Your task to perform on an android device: open sync settings in chrome Image 0: 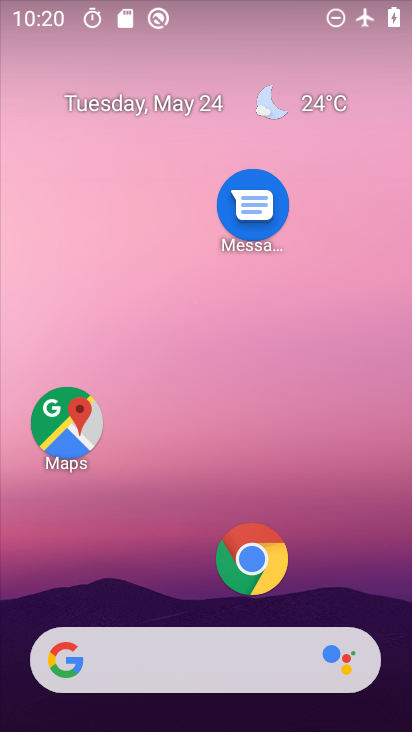
Step 0: click (244, 534)
Your task to perform on an android device: open sync settings in chrome Image 1: 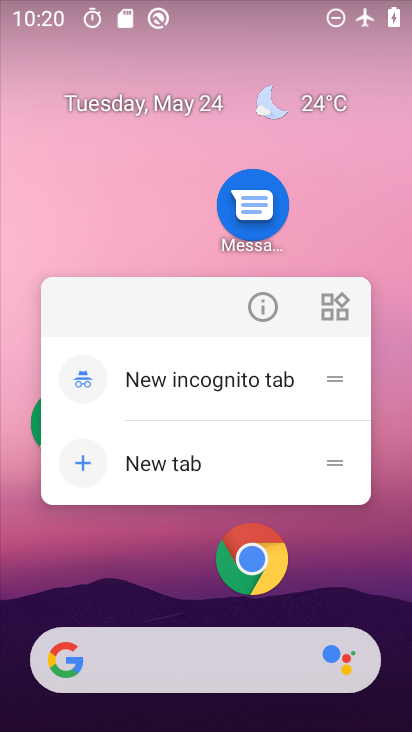
Step 1: click (247, 551)
Your task to perform on an android device: open sync settings in chrome Image 2: 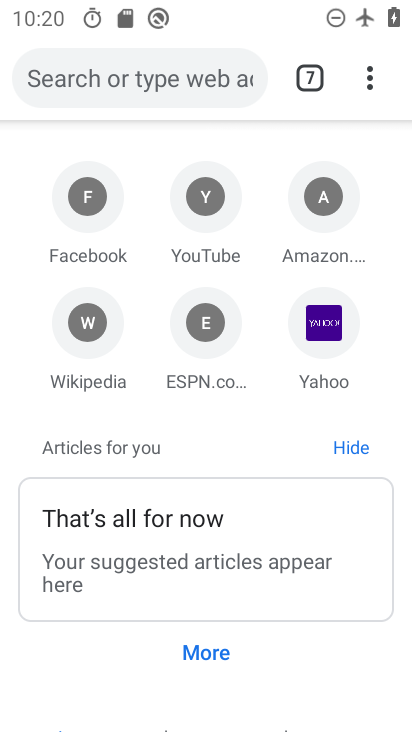
Step 2: drag from (361, 77) to (103, 642)
Your task to perform on an android device: open sync settings in chrome Image 3: 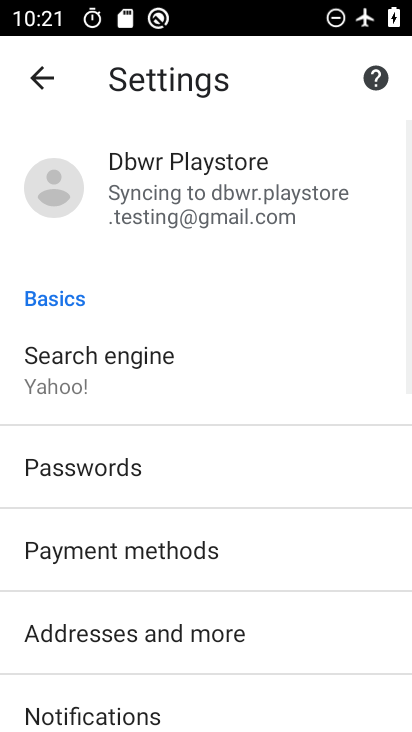
Step 3: click (147, 159)
Your task to perform on an android device: open sync settings in chrome Image 4: 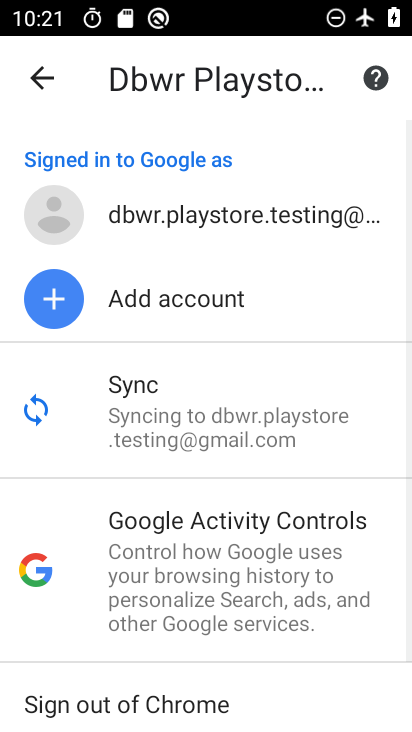
Step 4: click (162, 367)
Your task to perform on an android device: open sync settings in chrome Image 5: 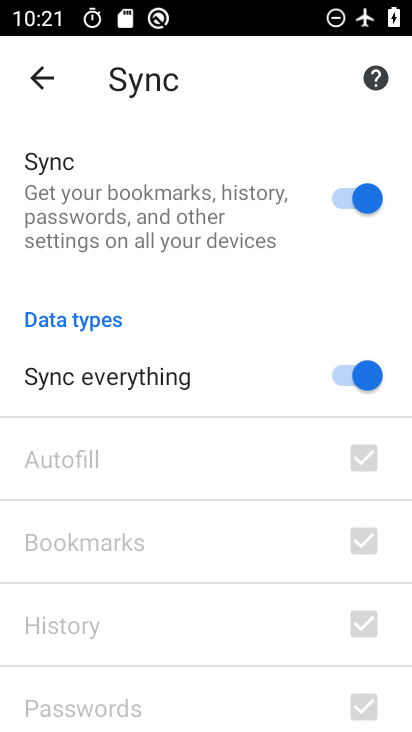
Step 5: task complete